Your task to perform on an android device: turn on priority inbox in the gmail app Image 0: 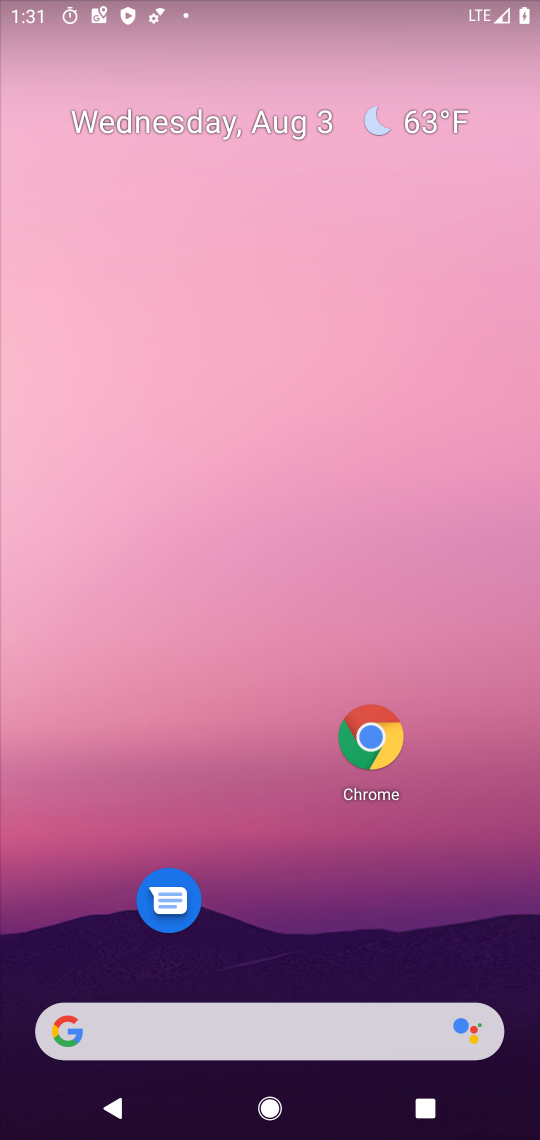
Step 0: drag from (282, 820) to (287, 16)
Your task to perform on an android device: turn on priority inbox in the gmail app Image 1: 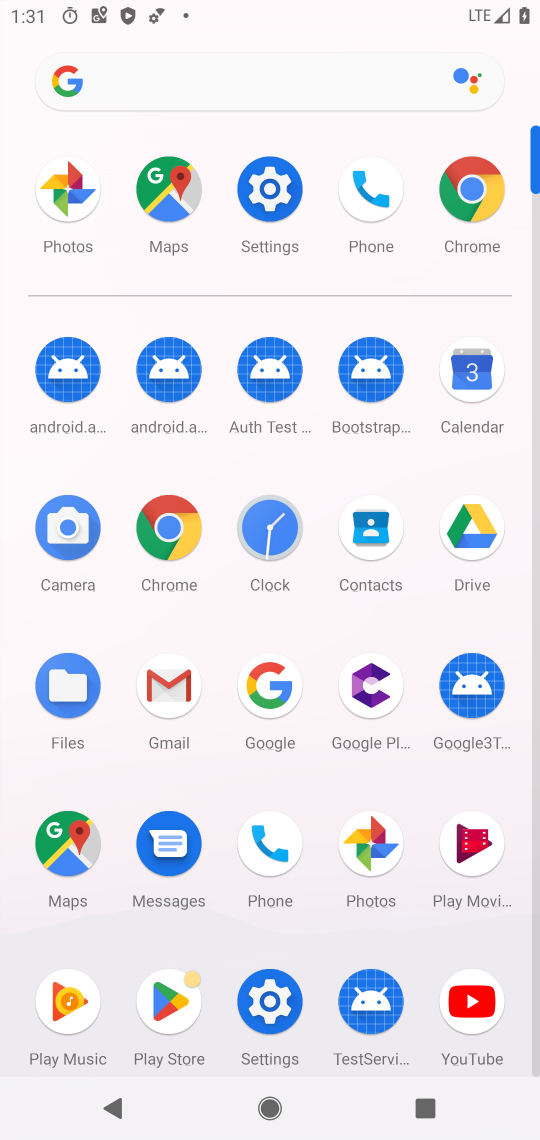
Step 1: click (163, 691)
Your task to perform on an android device: turn on priority inbox in the gmail app Image 2: 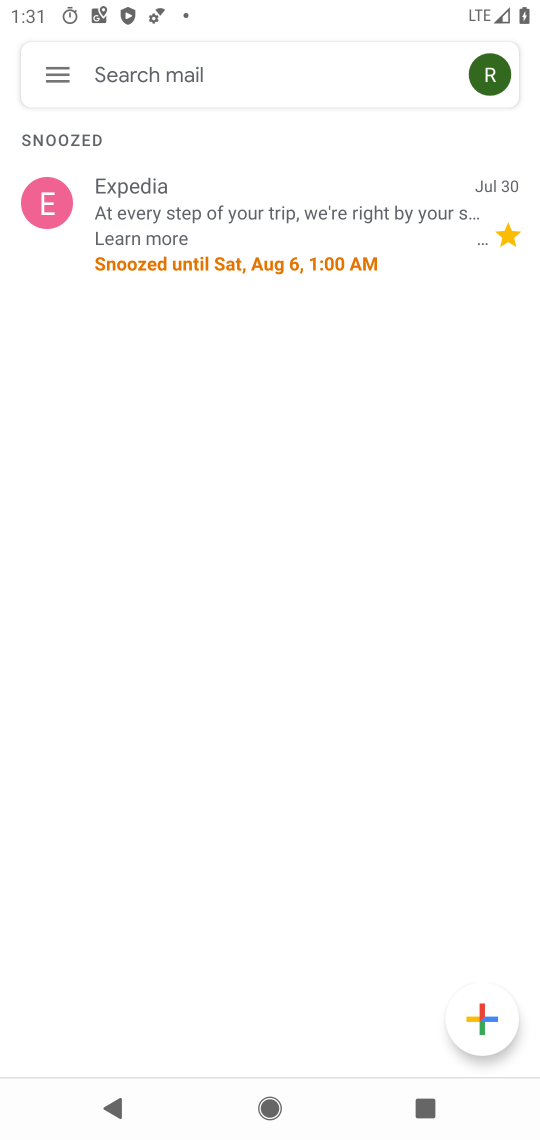
Step 2: click (48, 72)
Your task to perform on an android device: turn on priority inbox in the gmail app Image 3: 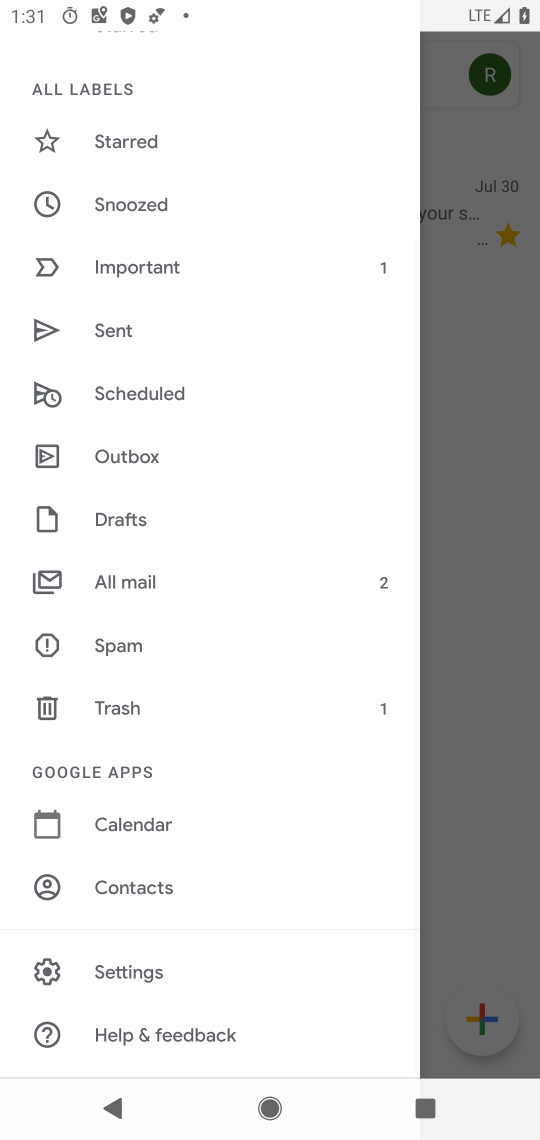
Step 3: click (113, 967)
Your task to perform on an android device: turn on priority inbox in the gmail app Image 4: 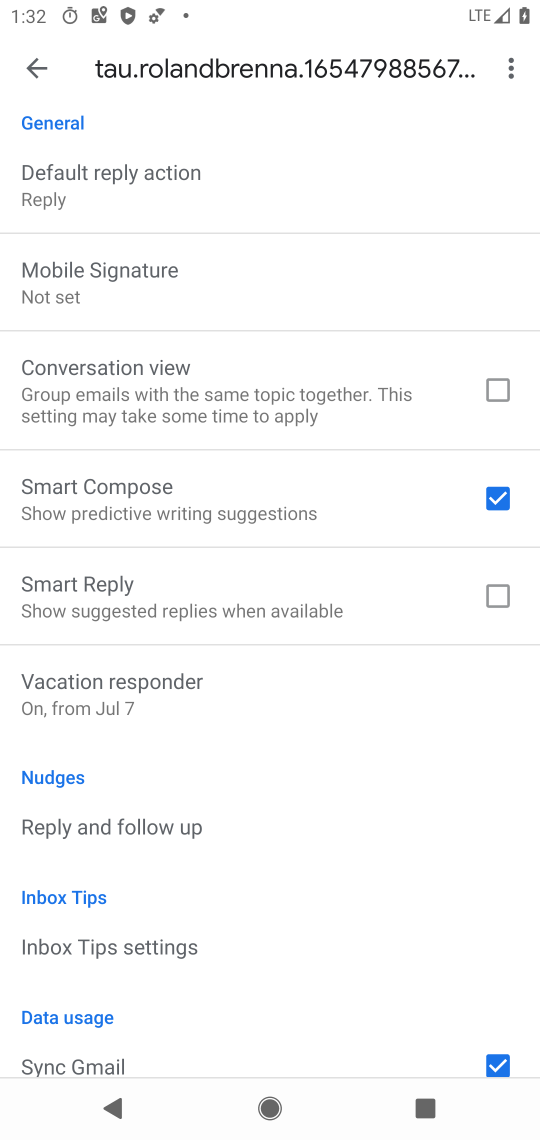
Step 4: drag from (330, 944) to (438, 1036)
Your task to perform on an android device: turn on priority inbox in the gmail app Image 5: 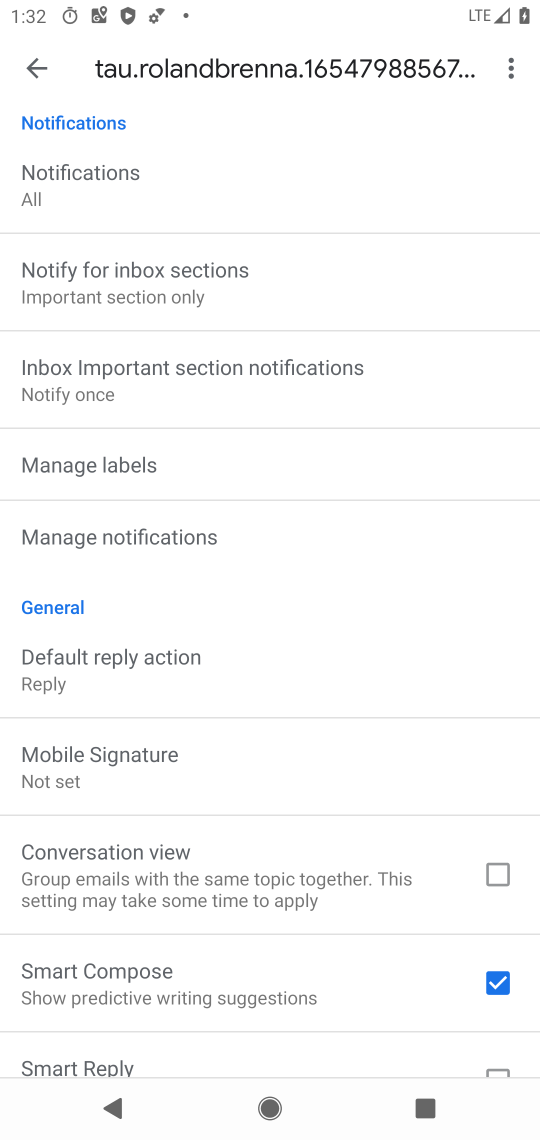
Step 5: drag from (347, 184) to (387, 977)
Your task to perform on an android device: turn on priority inbox in the gmail app Image 6: 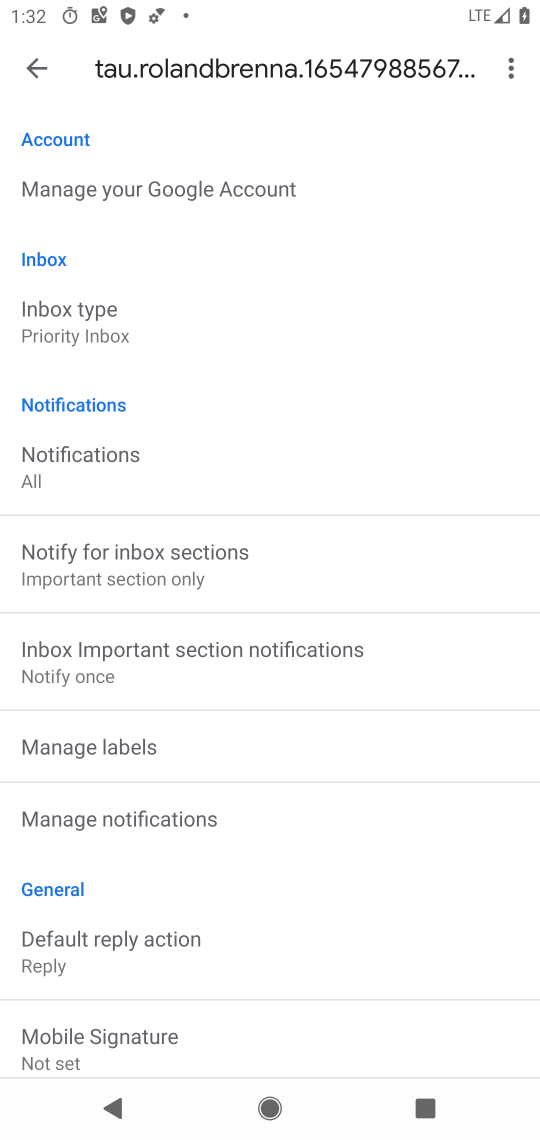
Step 6: click (124, 329)
Your task to perform on an android device: turn on priority inbox in the gmail app Image 7: 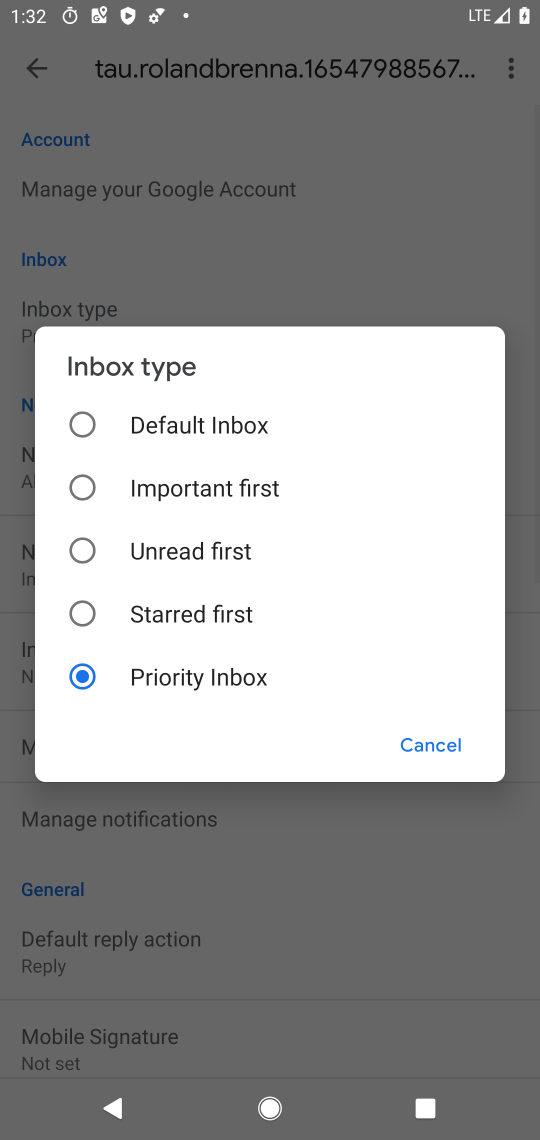
Step 7: task complete